Your task to perform on an android device: add a contact Image 0: 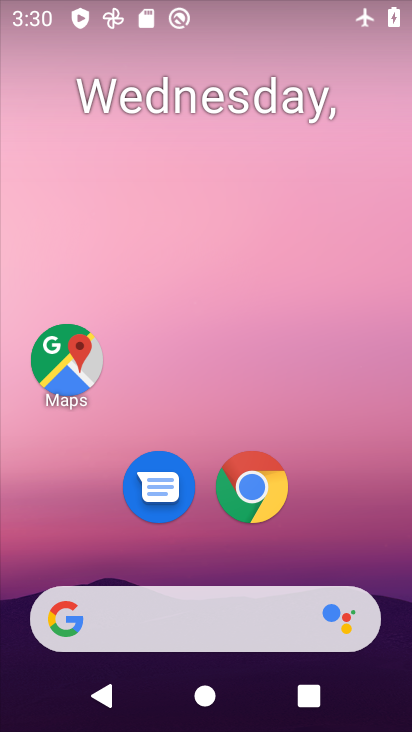
Step 0: drag from (350, 542) to (366, 177)
Your task to perform on an android device: add a contact Image 1: 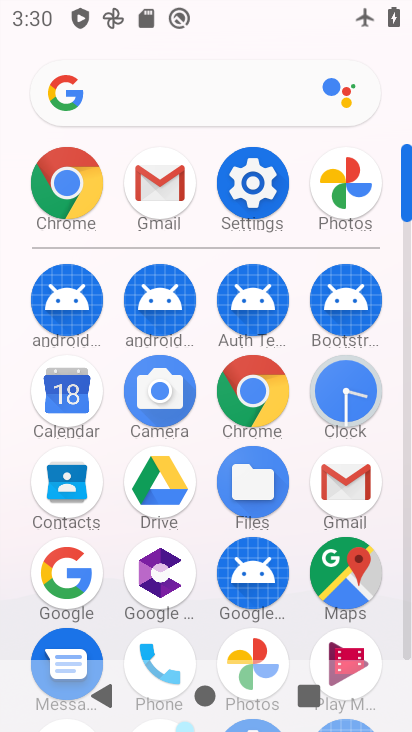
Step 1: click (82, 483)
Your task to perform on an android device: add a contact Image 2: 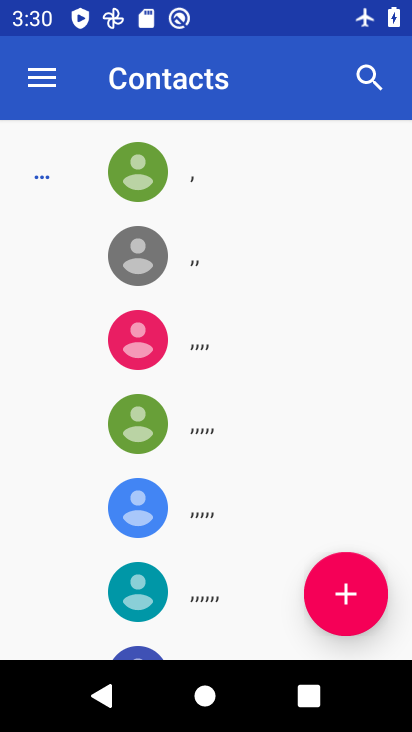
Step 2: click (350, 599)
Your task to perform on an android device: add a contact Image 3: 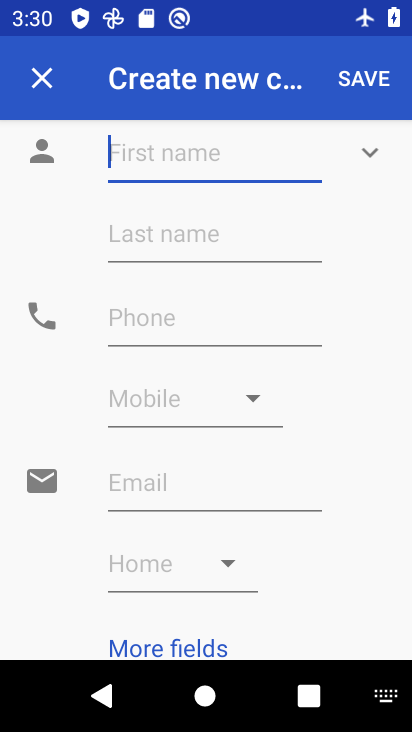
Step 3: click (210, 159)
Your task to perform on an android device: add a contact Image 4: 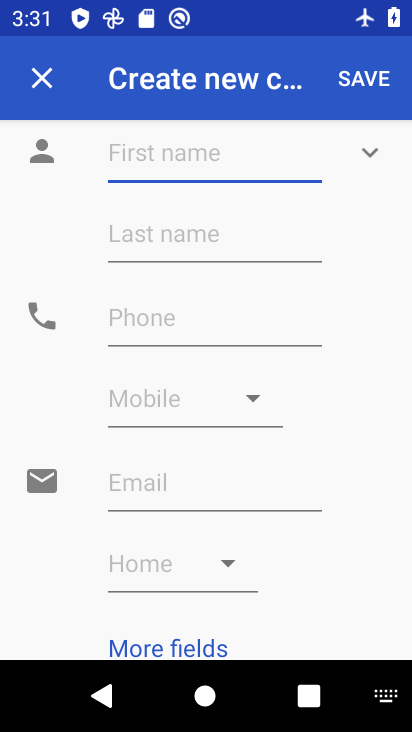
Step 4: type "lolll"
Your task to perform on an android device: add a contact Image 5: 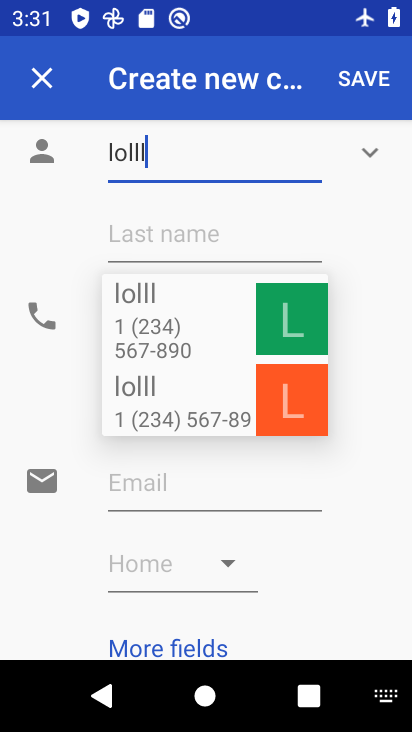
Step 5: click (377, 290)
Your task to perform on an android device: add a contact Image 6: 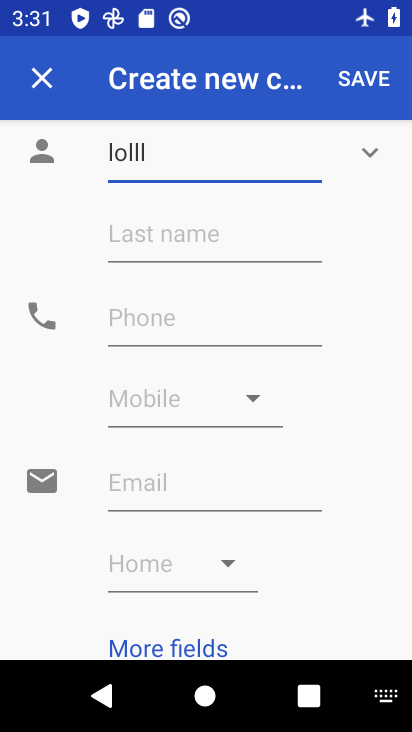
Step 6: click (178, 336)
Your task to perform on an android device: add a contact Image 7: 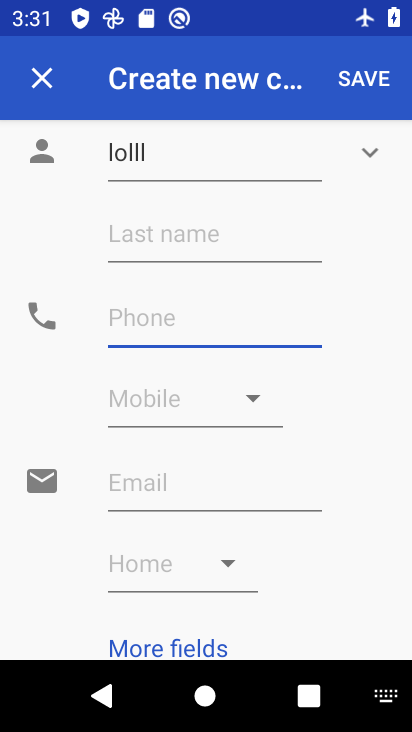
Step 7: type "123456789"
Your task to perform on an android device: add a contact Image 8: 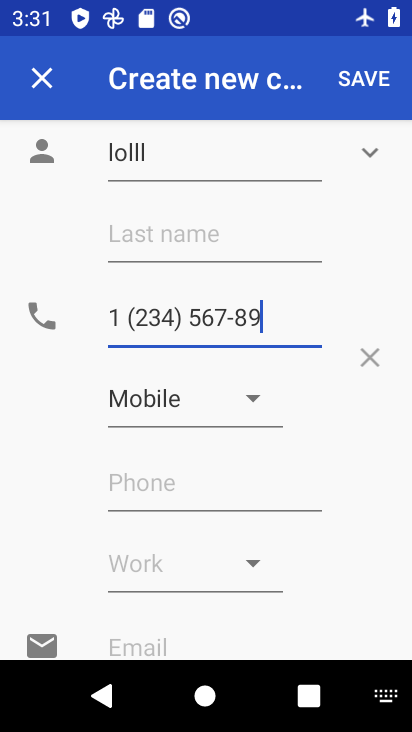
Step 8: click (360, 86)
Your task to perform on an android device: add a contact Image 9: 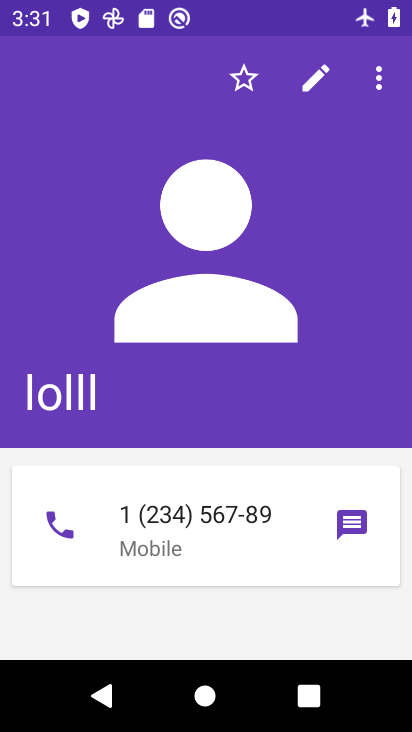
Step 9: task complete